Your task to perform on an android device: Go to notification settings Image 0: 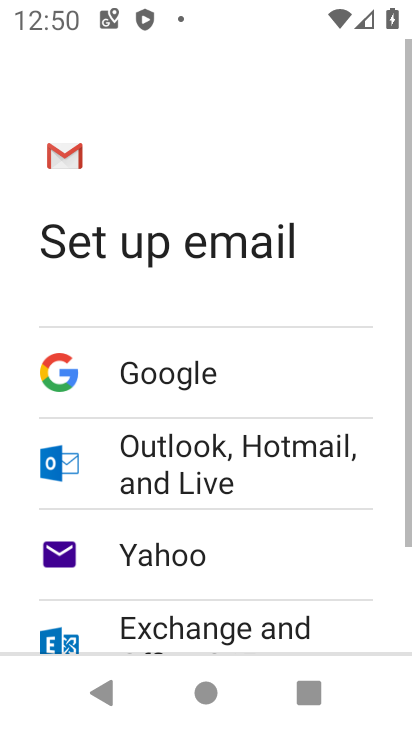
Step 0: press home button
Your task to perform on an android device: Go to notification settings Image 1: 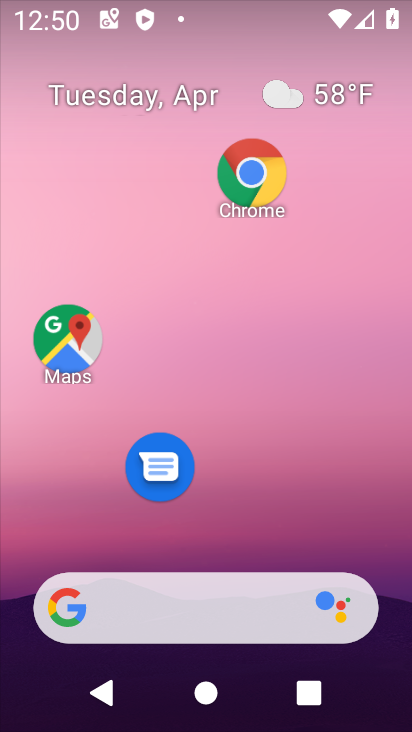
Step 1: drag from (212, 247) to (271, 10)
Your task to perform on an android device: Go to notification settings Image 2: 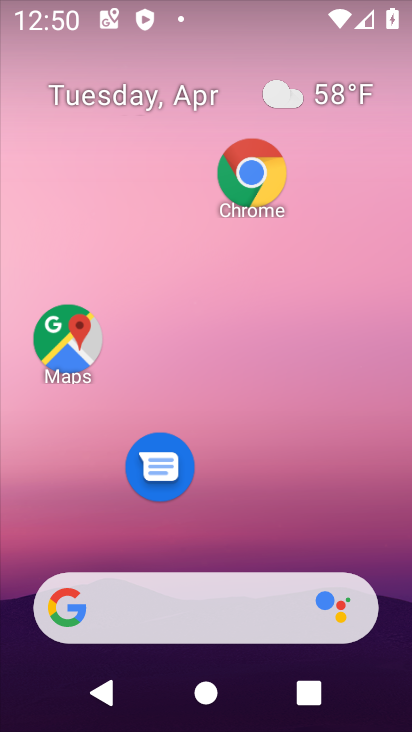
Step 2: drag from (291, 578) to (326, 42)
Your task to perform on an android device: Go to notification settings Image 3: 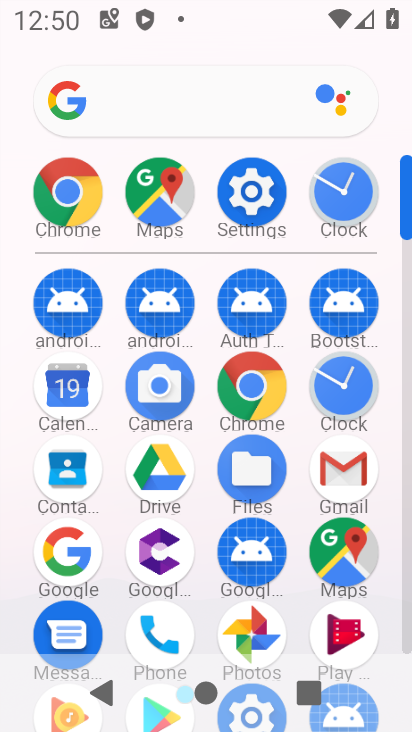
Step 3: drag from (200, 525) to (191, 139)
Your task to perform on an android device: Go to notification settings Image 4: 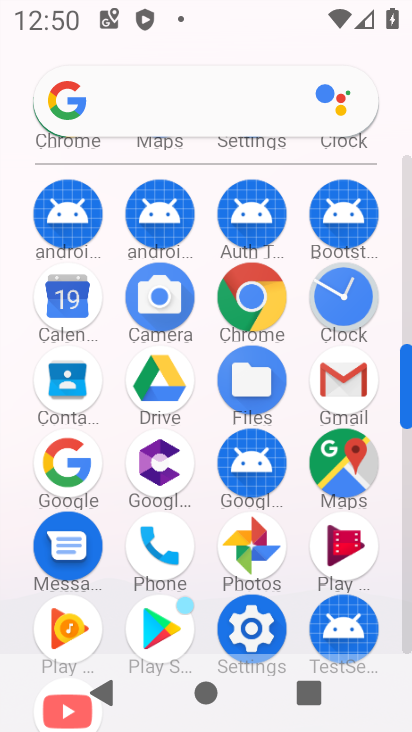
Step 4: click (245, 616)
Your task to perform on an android device: Go to notification settings Image 5: 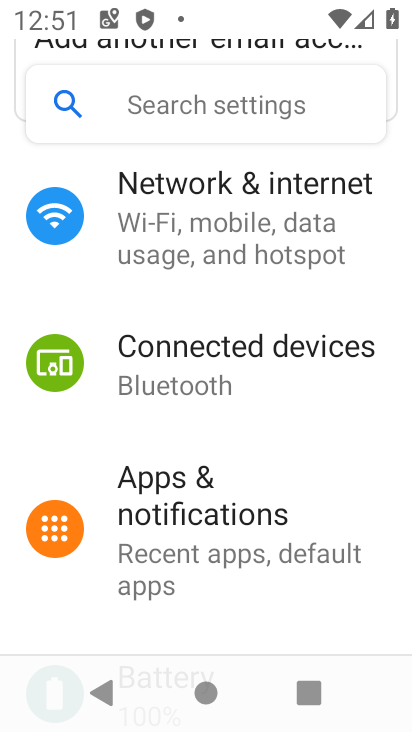
Step 5: click (222, 505)
Your task to perform on an android device: Go to notification settings Image 6: 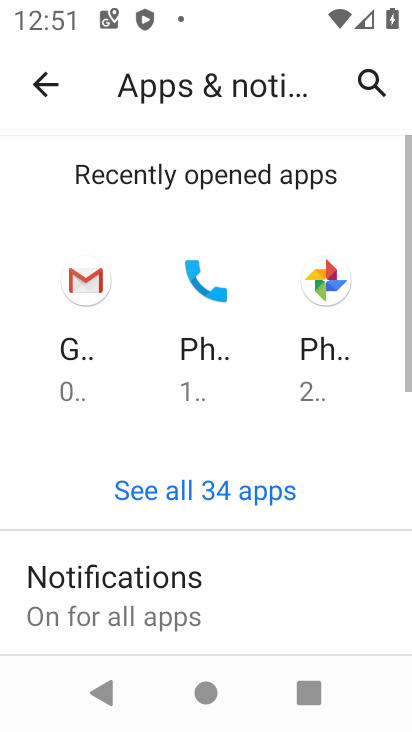
Step 6: drag from (261, 633) to (260, 199)
Your task to perform on an android device: Go to notification settings Image 7: 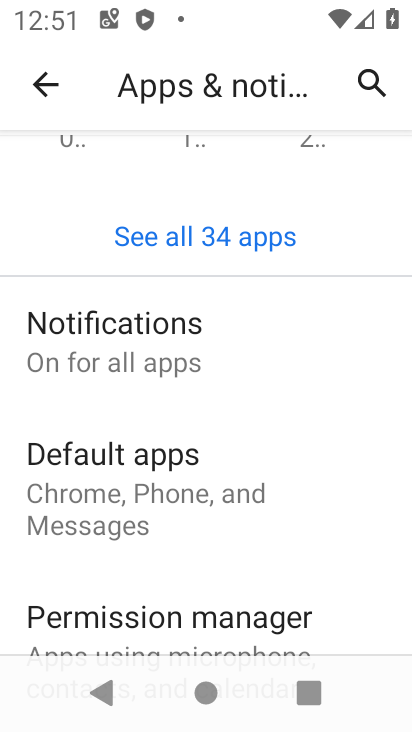
Step 7: click (235, 353)
Your task to perform on an android device: Go to notification settings Image 8: 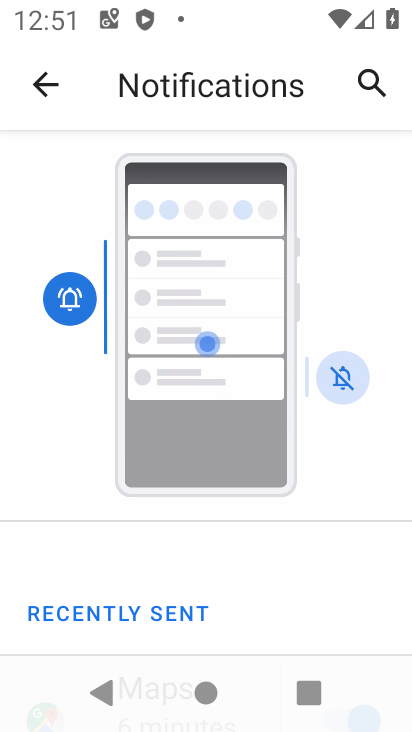
Step 8: task complete